Your task to perform on an android device: Go to location settings Image 0: 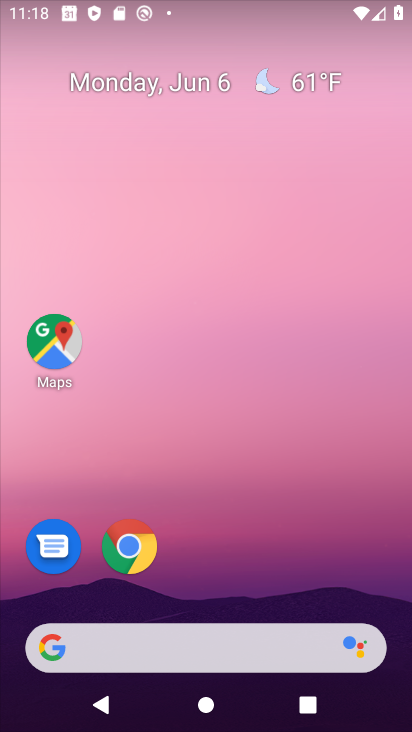
Step 0: drag from (229, 583) to (288, 70)
Your task to perform on an android device: Go to location settings Image 1: 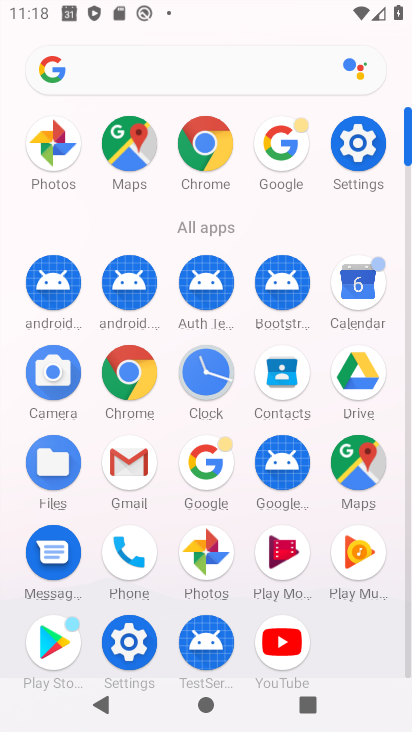
Step 1: click (354, 141)
Your task to perform on an android device: Go to location settings Image 2: 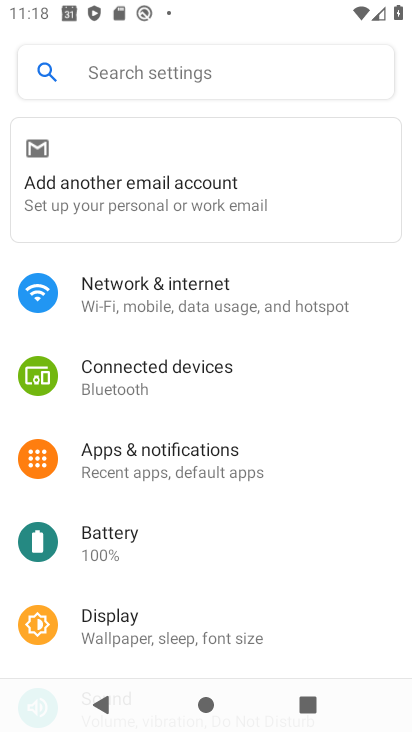
Step 2: drag from (157, 615) to (266, 88)
Your task to perform on an android device: Go to location settings Image 3: 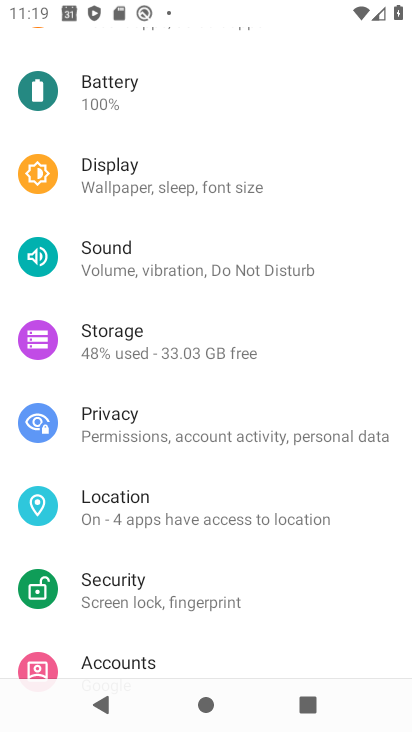
Step 3: click (141, 517)
Your task to perform on an android device: Go to location settings Image 4: 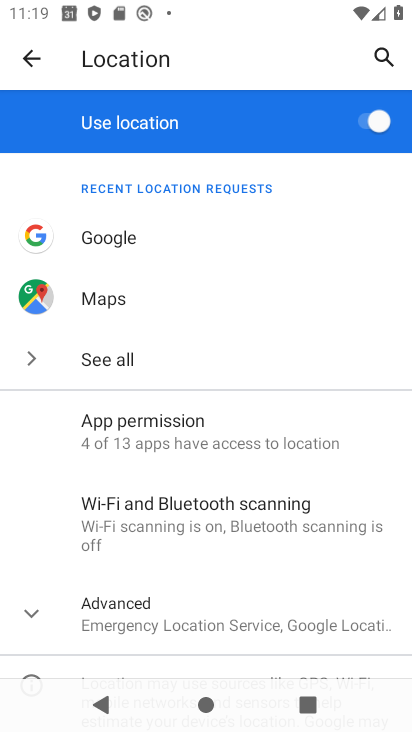
Step 4: task complete